Your task to perform on an android device: Open sound settings Image 0: 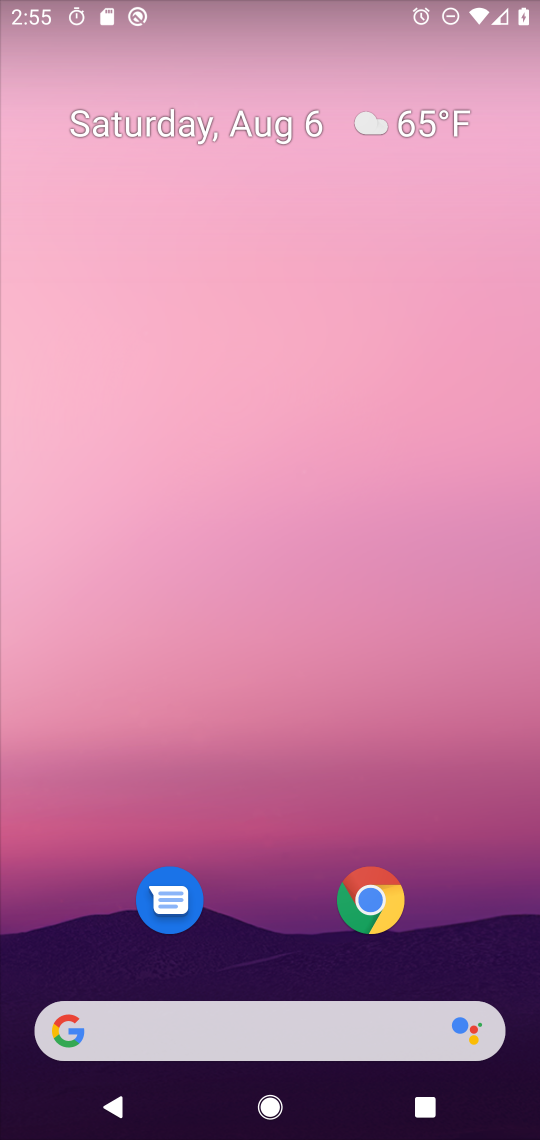
Step 0: drag from (284, 980) to (282, 28)
Your task to perform on an android device: Open sound settings Image 1: 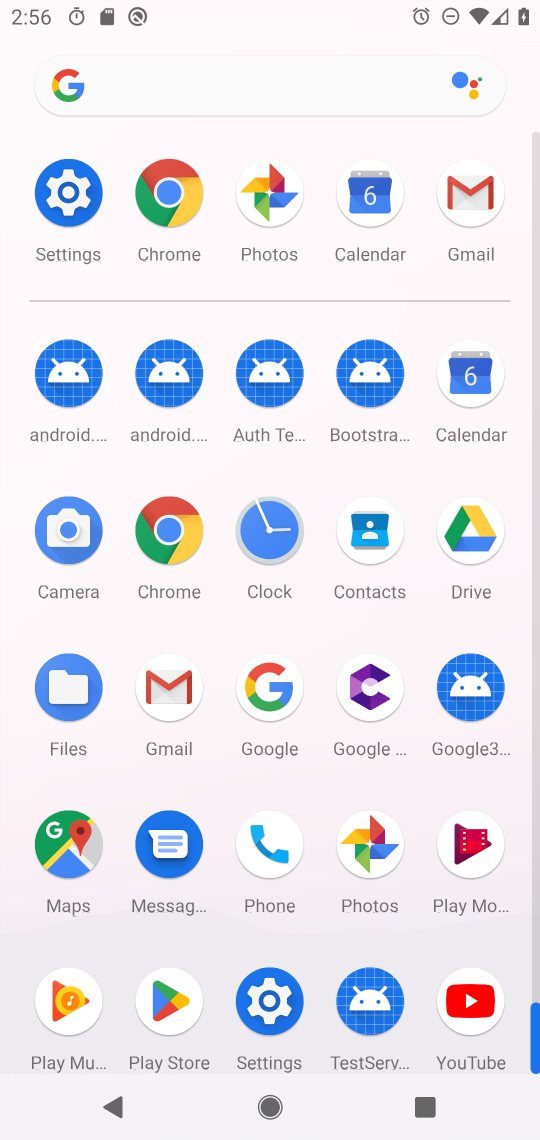
Step 1: click (269, 1004)
Your task to perform on an android device: Open sound settings Image 2: 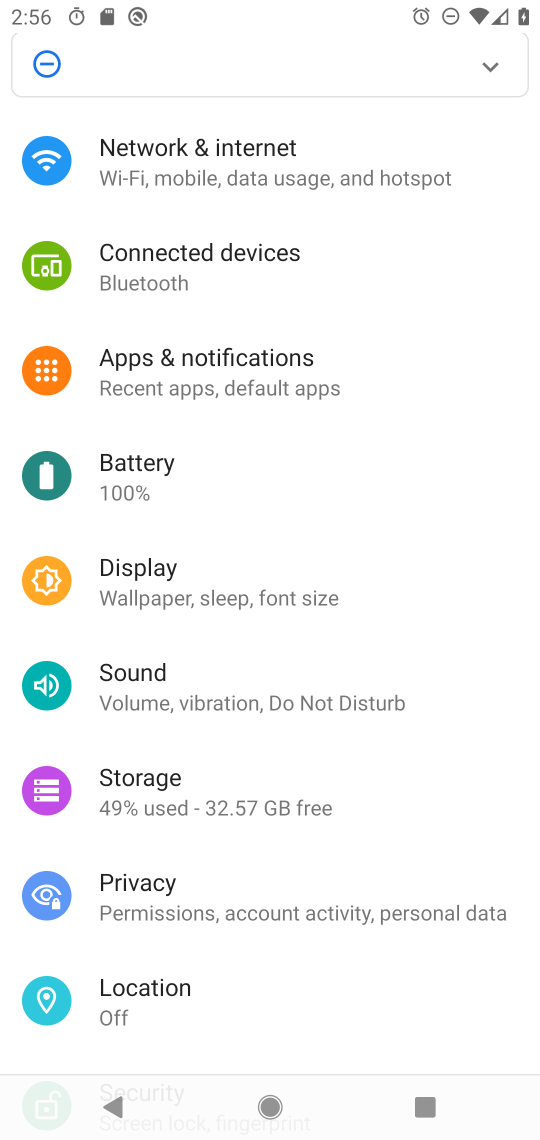
Step 2: click (124, 691)
Your task to perform on an android device: Open sound settings Image 3: 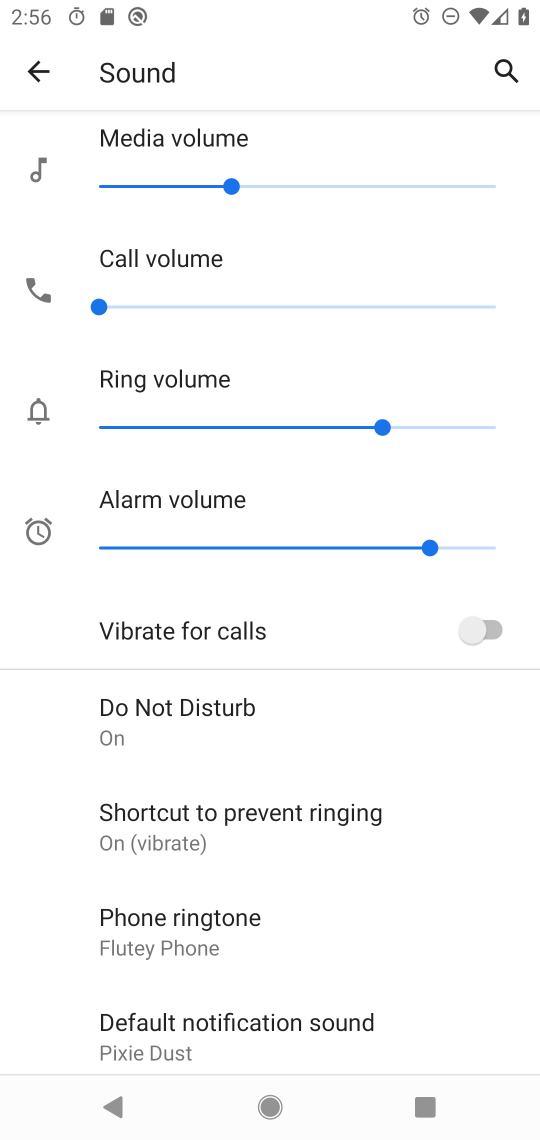
Step 3: task complete